Your task to perform on an android device: set the timer Image 0: 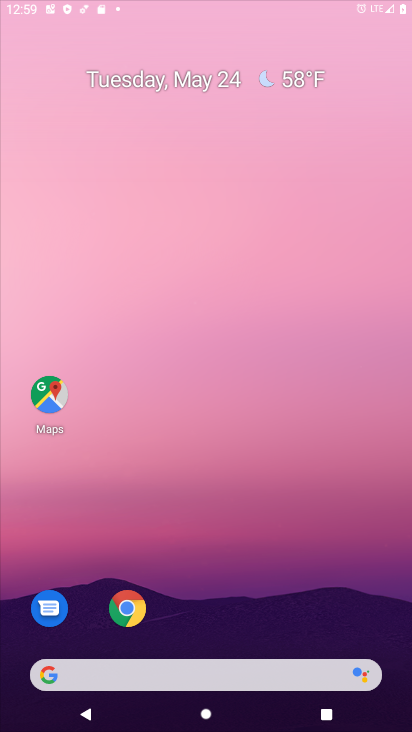
Step 0: press home button
Your task to perform on an android device: set the timer Image 1: 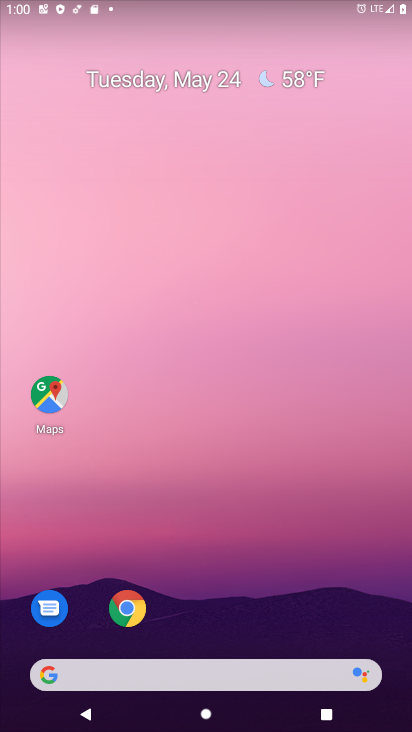
Step 1: drag from (304, 695) to (252, 1)
Your task to perform on an android device: set the timer Image 2: 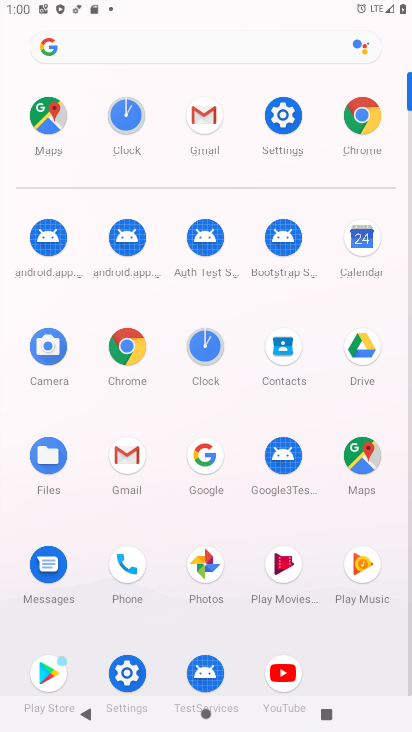
Step 2: click (133, 130)
Your task to perform on an android device: set the timer Image 3: 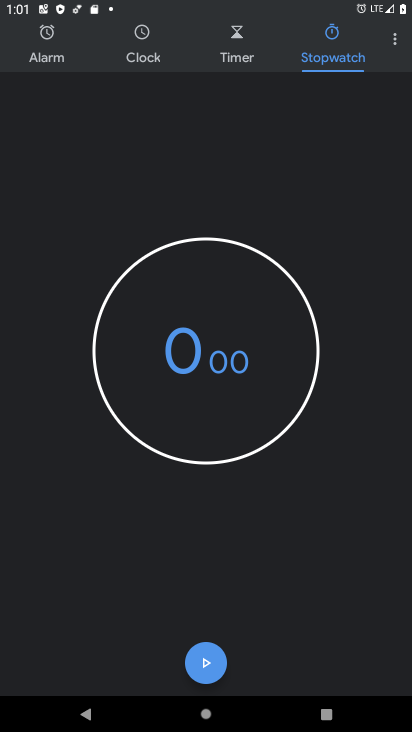
Step 3: click (234, 35)
Your task to perform on an android device: set the timer Image 4: 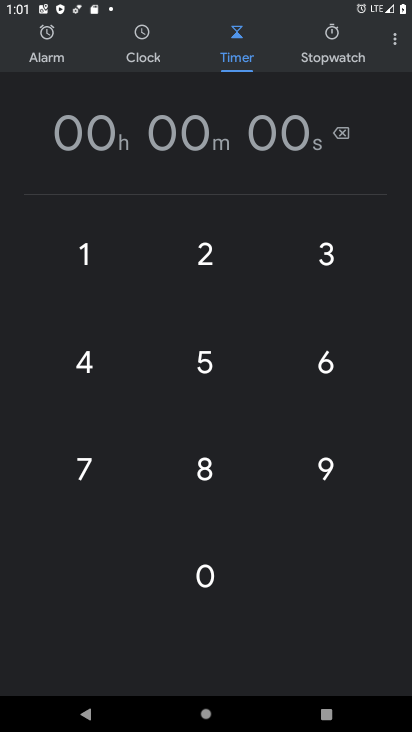
Step 4: click (218, 354)
Your task to perform on an android device: set the timer Image 5: 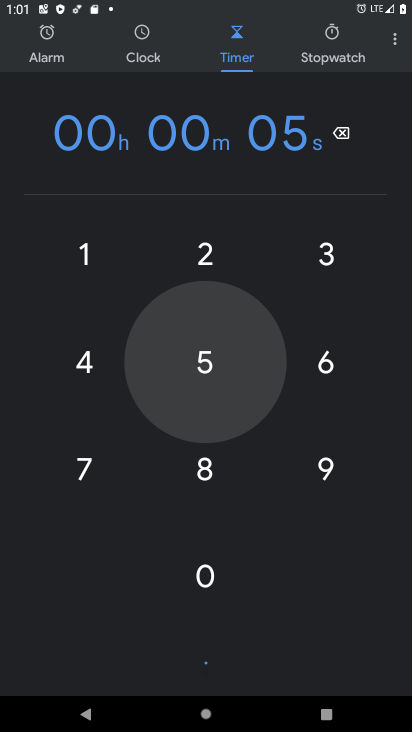
Step 5: click (105, 362)
Your task to perform on an android device: set the timer Image 6: 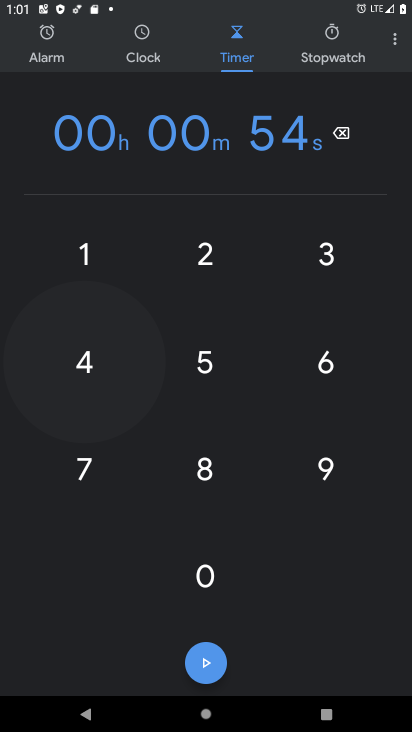
Step 6: click (128, 245)
Your task to perform on an android device: set the timer Image 7: 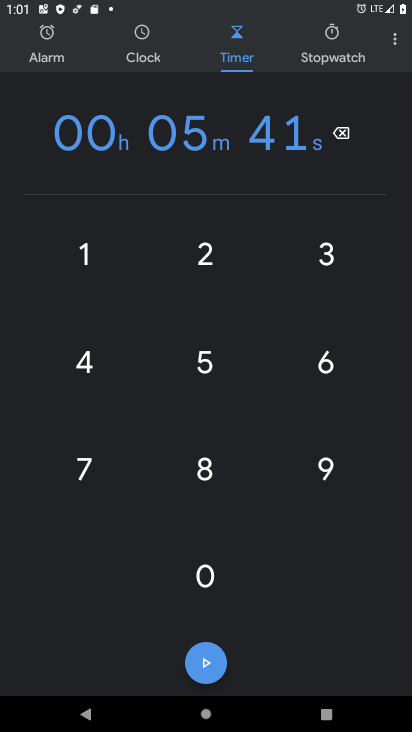
Step 7: click (107, 452)
Your task to perform on an android device: set the timer Image 8: 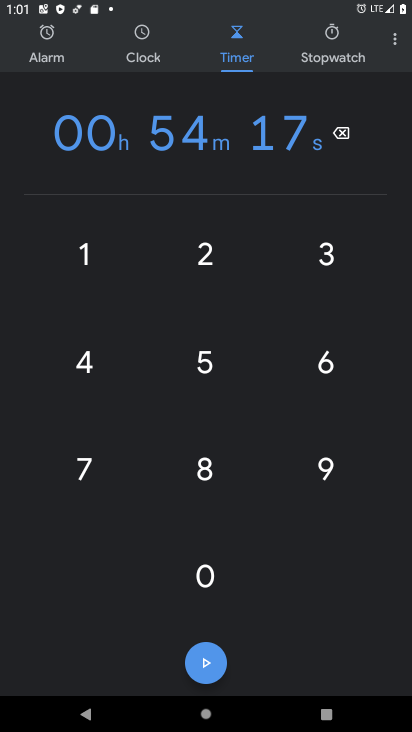
Step 8: click (321, 239)
Your task to perform on an android device: set the timer Image 9: 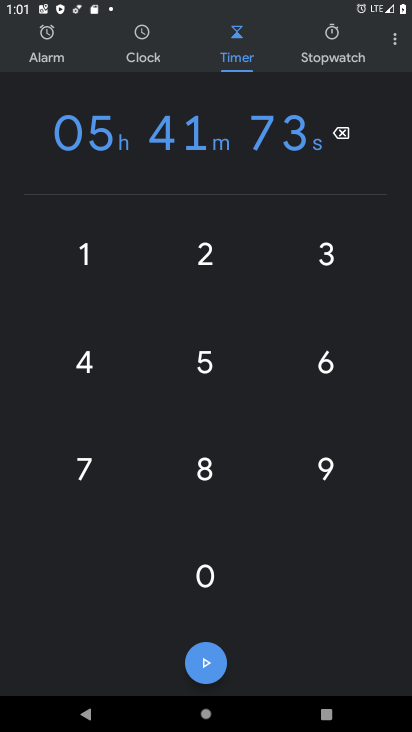
Step 9: click (215, 661)
Your task to perform on an android device: set the timer Image 10: 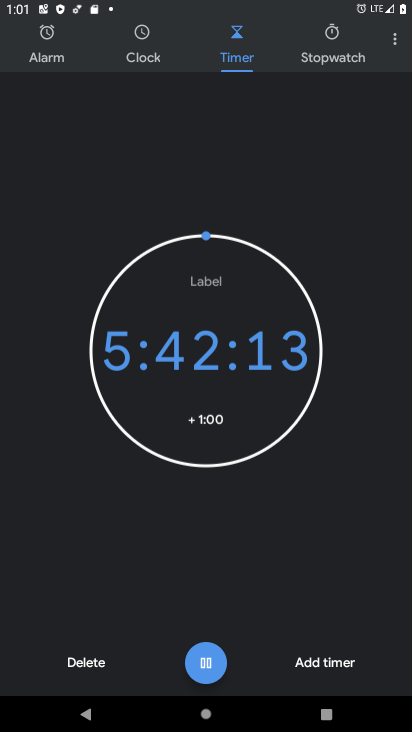
Step 10: click (226, 643)
Your task to perform on an android device: set the timer Image 11: 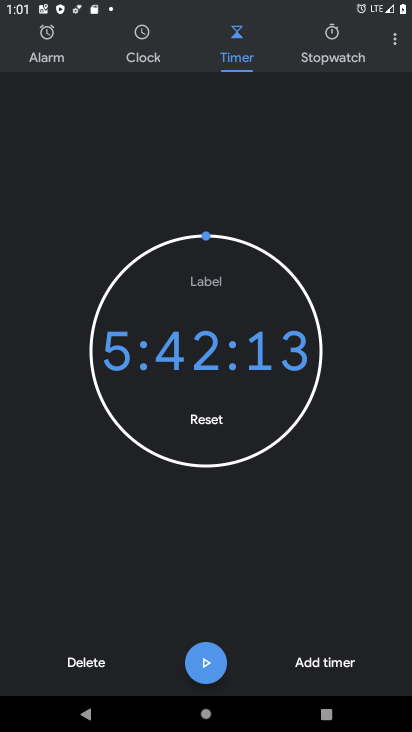
Step 11: task complete